Your task to perform on an android device: toggle airplane mode Image 0: 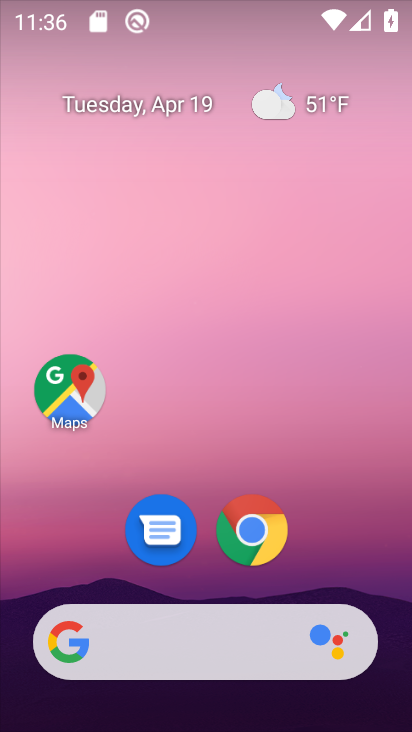
Step 0: drag from (204, 385) to (318, 6)
Your task to perform on an android device: toggle airplane mode Image 1: 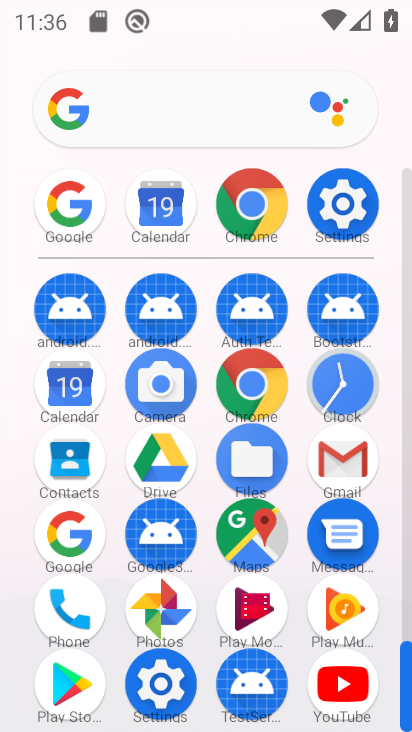
Step 1: click (353, 213)
Your task to perform on an android device: toggle airplane mode Image 2: 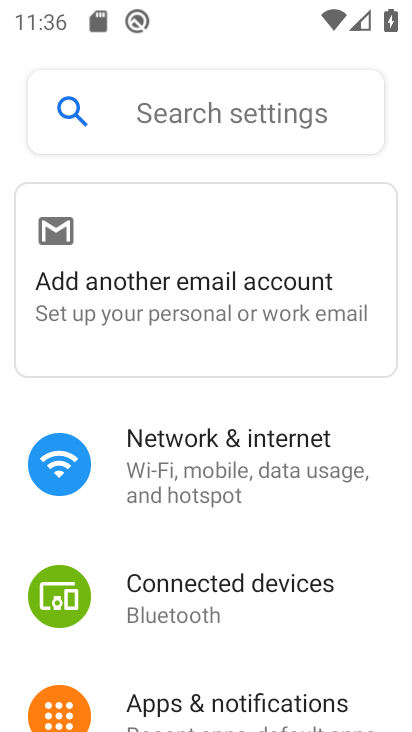
Step 2: click (203, 472)
Your task to perform on an android device: toggle airplane mode Image 3: 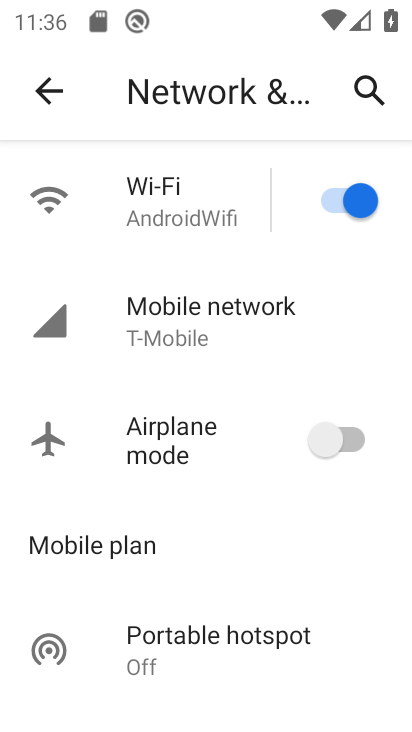
Step 3: click (348, 437)
Your task to perform on an android device: toggle airplane mode Image 4: 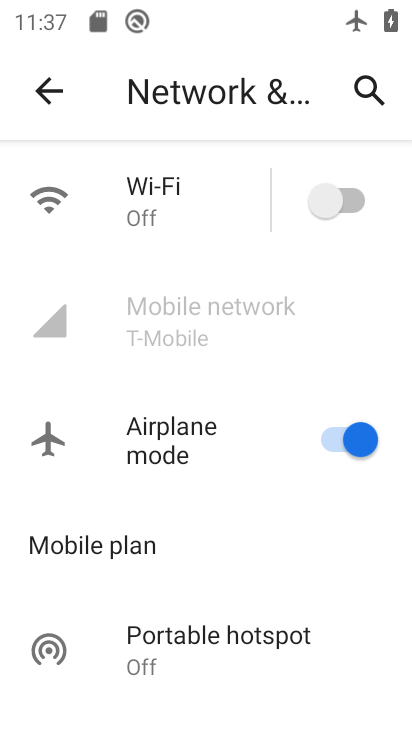
Step 4: task complete